Your task to perform on an android device: set the stopwatch Image 0: 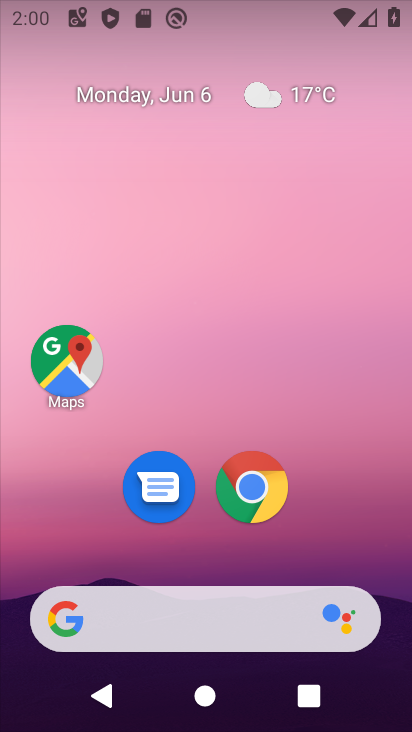
Step 0: drag from (111, 578) to (249, 175)
Your task to perform on an android device: set the stopwatch Image 1: 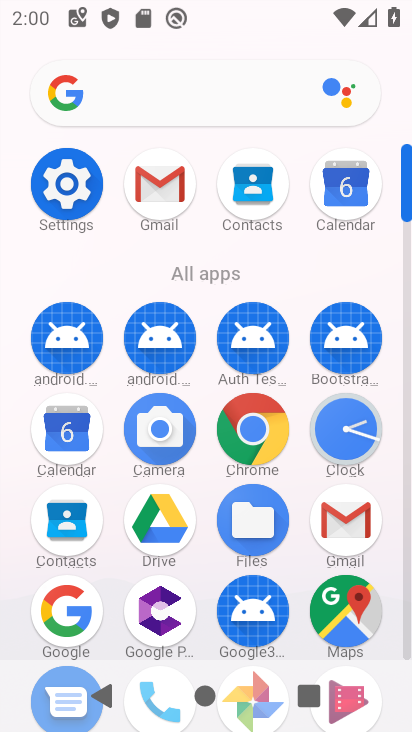
Step 1: click (337, 428)
Your task to perform on an android device: set the stopwatch Image 2: 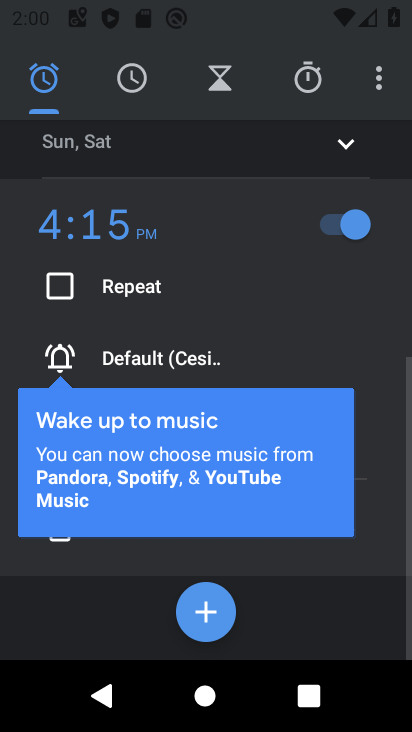
Step 2: click (311, 98)
Your task to perform on an android device: set the stopwatch Image 3: 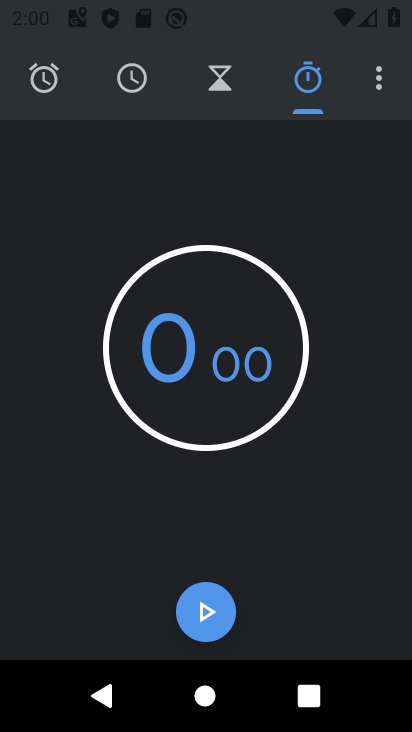
Step 3: click (206, 630)
Your task to perform on an android device: set the stopwatch Image 4: 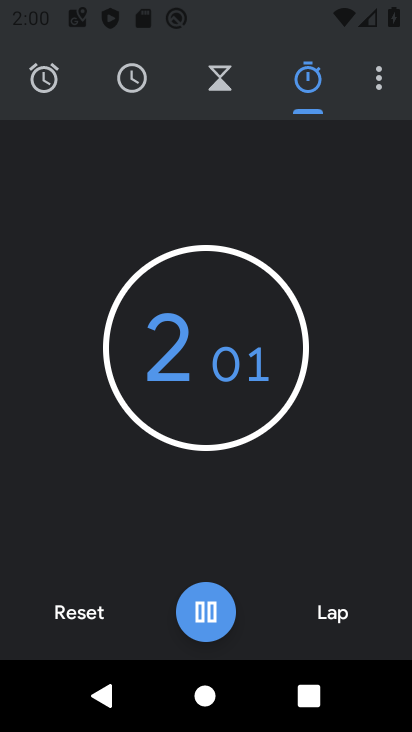
Step 4: task complete